Your task to perform on an android device: turn off javascript in the chrome app Image 0: 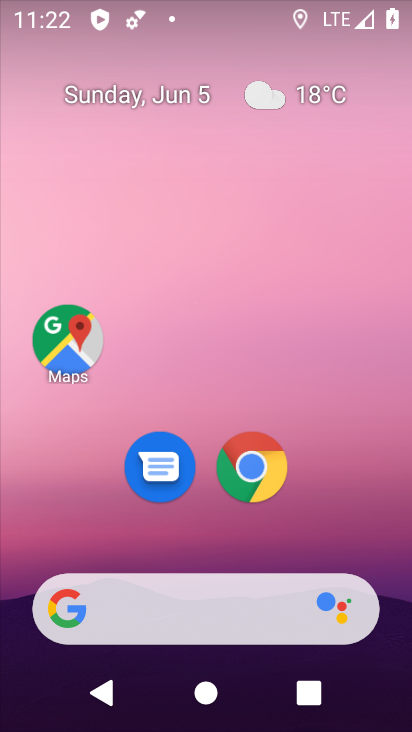
Step 0: click (251, 458)
Your task to perform on an android device: turn off javascript in the chrome app Image 1: 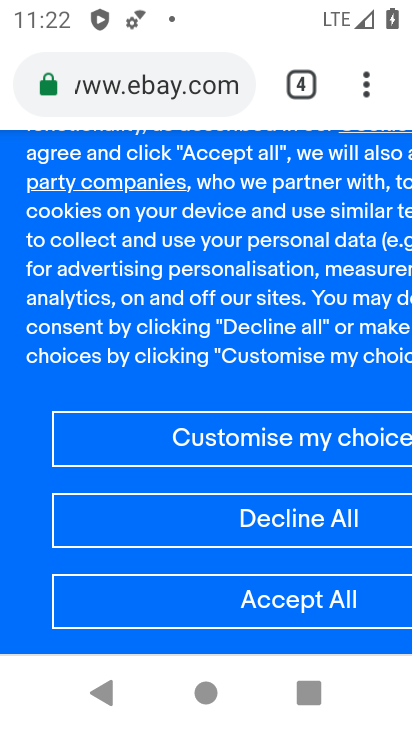
Step 1: click (373, 95)
Your task to perform on an android device: turn off javascript in the chrome app Image 2: 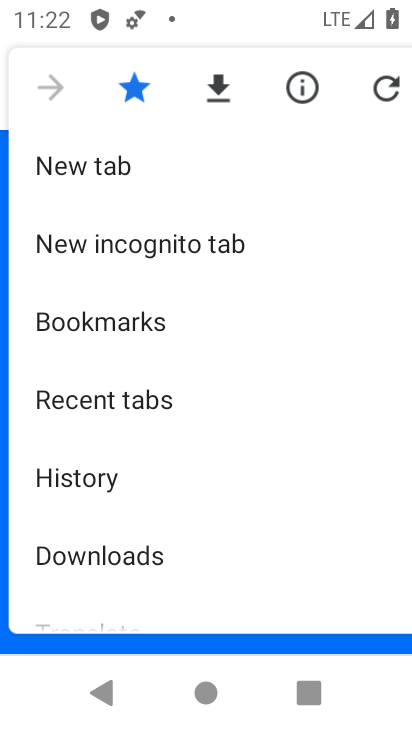
Step 2: drag from (199, 441) to (154, 89)
Your task to perform on an android device: turn off javascript in the chrome app Image 3: 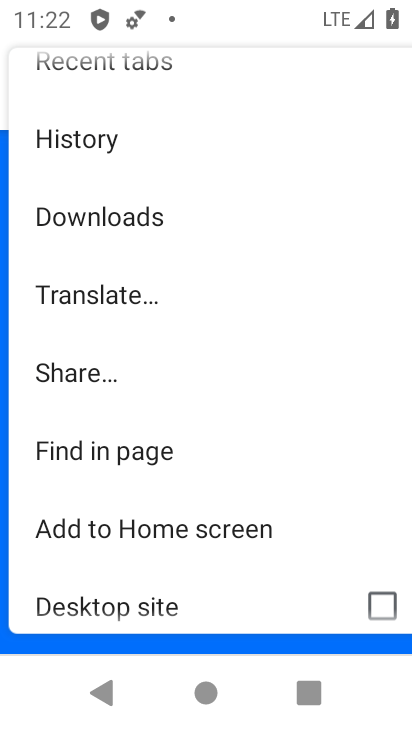
Step 3: drag from (137, 538) to (127, 289)
Your task to perform on an android device: turn off javascript in the chrome app Image 4: 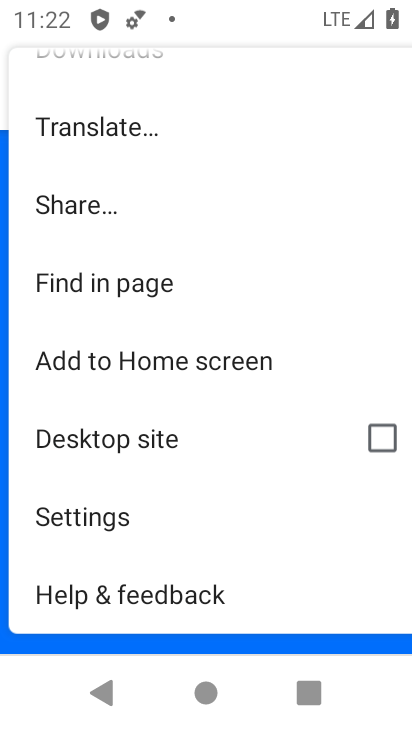
Step 4: click (72, 521)
Your task to perform on an android device: turn off javascript in the chrome app Image 5: 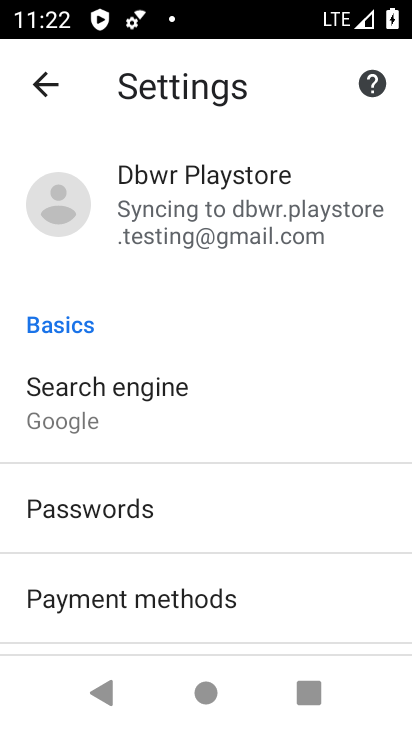
Step 5: drag from (174, 596) to (92, 130)
Your task to perform on an android device: turn off javascript in the chrome app Image 6: 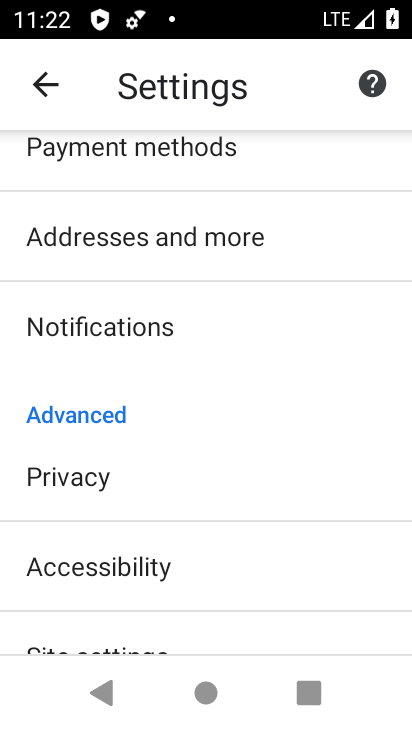
Step 6: drag from (215, 365) to (133, 22)
Your task to perform on an android device: turn off javascript in the chrome app Image 7: 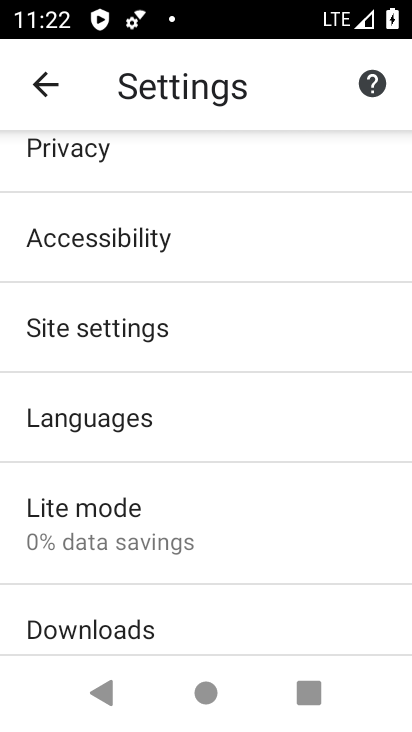
Step 7: click (137, 338)
Your task to perform on an android device: turn off javascript in the chrome app Image 8: 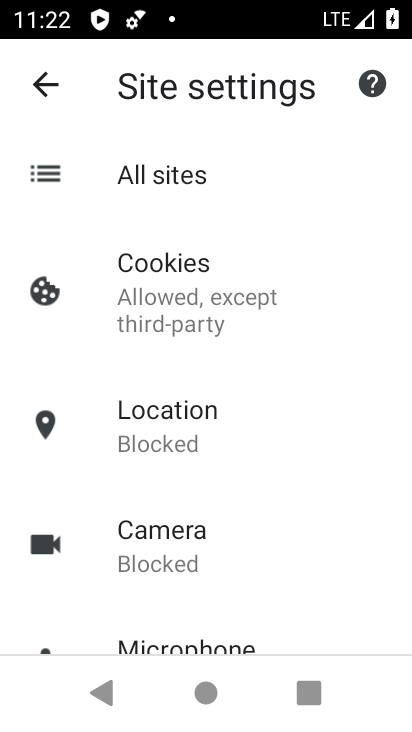
Step 8: drag from (191, 438) to (142, 86)
Your task to perform on an android device: turn off javascript in the chrome app Image 9: 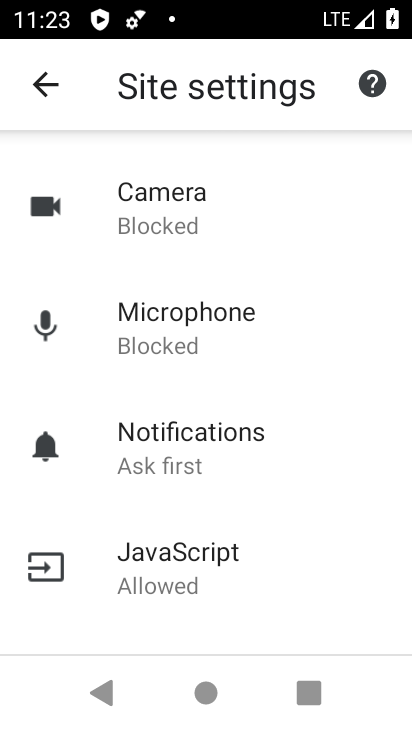
Step 9: click (155, 559)
Your task to perform on an android device: turn off javascript in the chrome app Image 10: 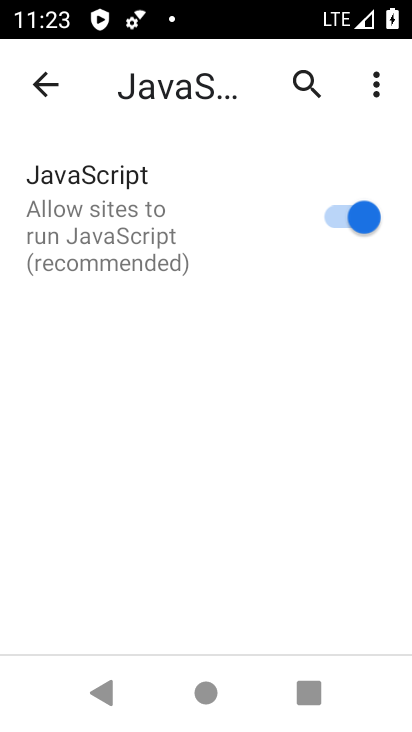
Step 10: click (349, 200)
Your task to perform on an android device: turn off javascript in the chrome app Image 11: 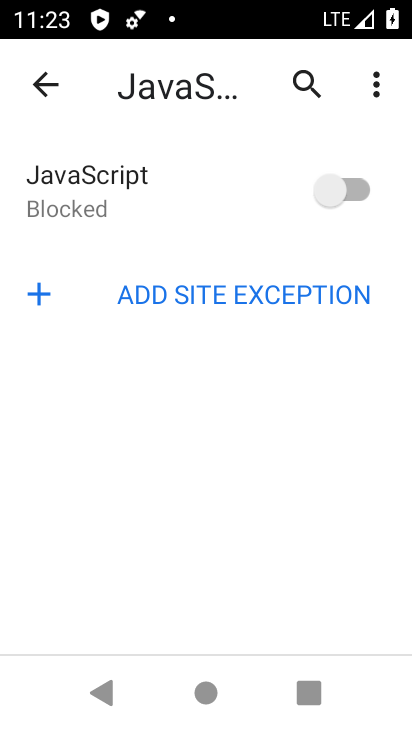
Step 11: task complete